Your task to perform on an android device: Open the camera Image 0: 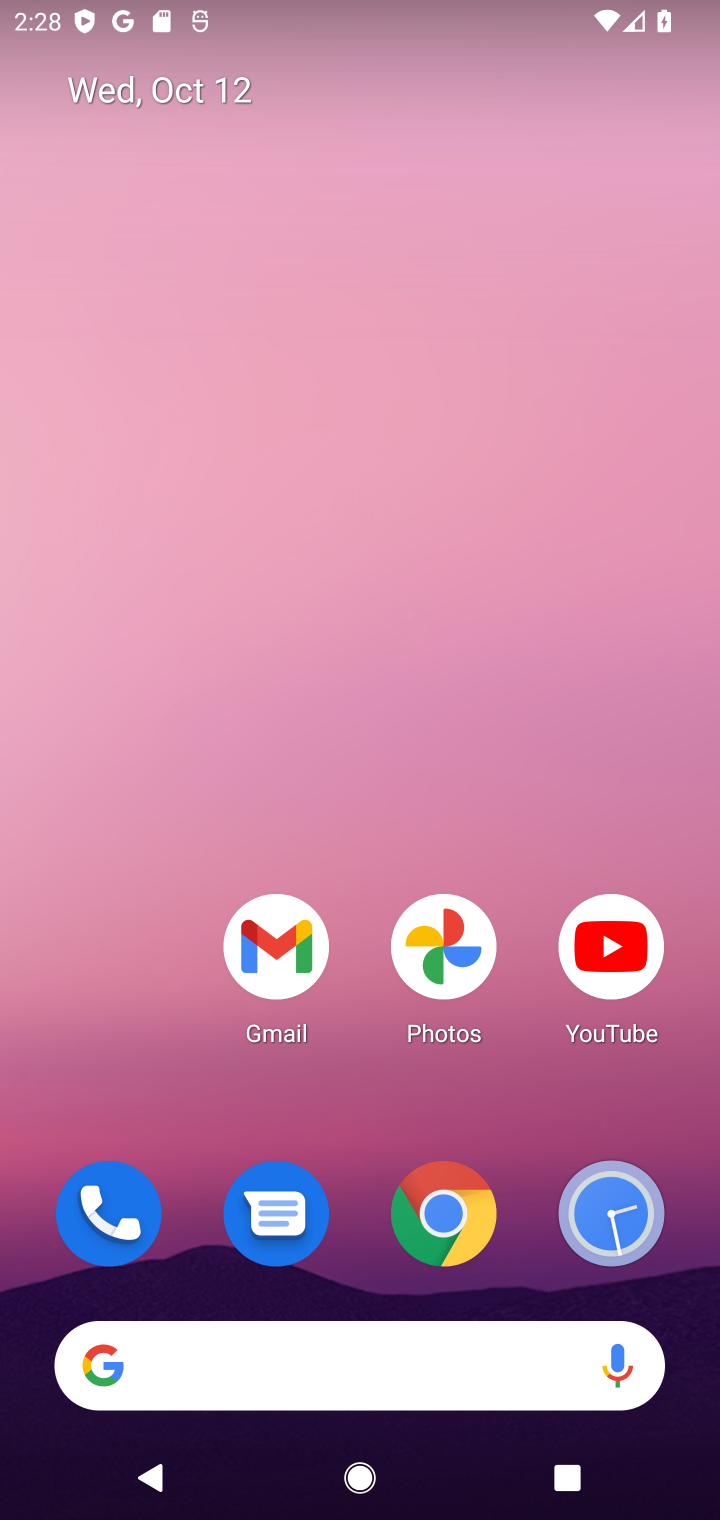
Step 0: drag from (359, 936) to (426, 174)
Your task to perform on an android device: Open the camera Image 1: 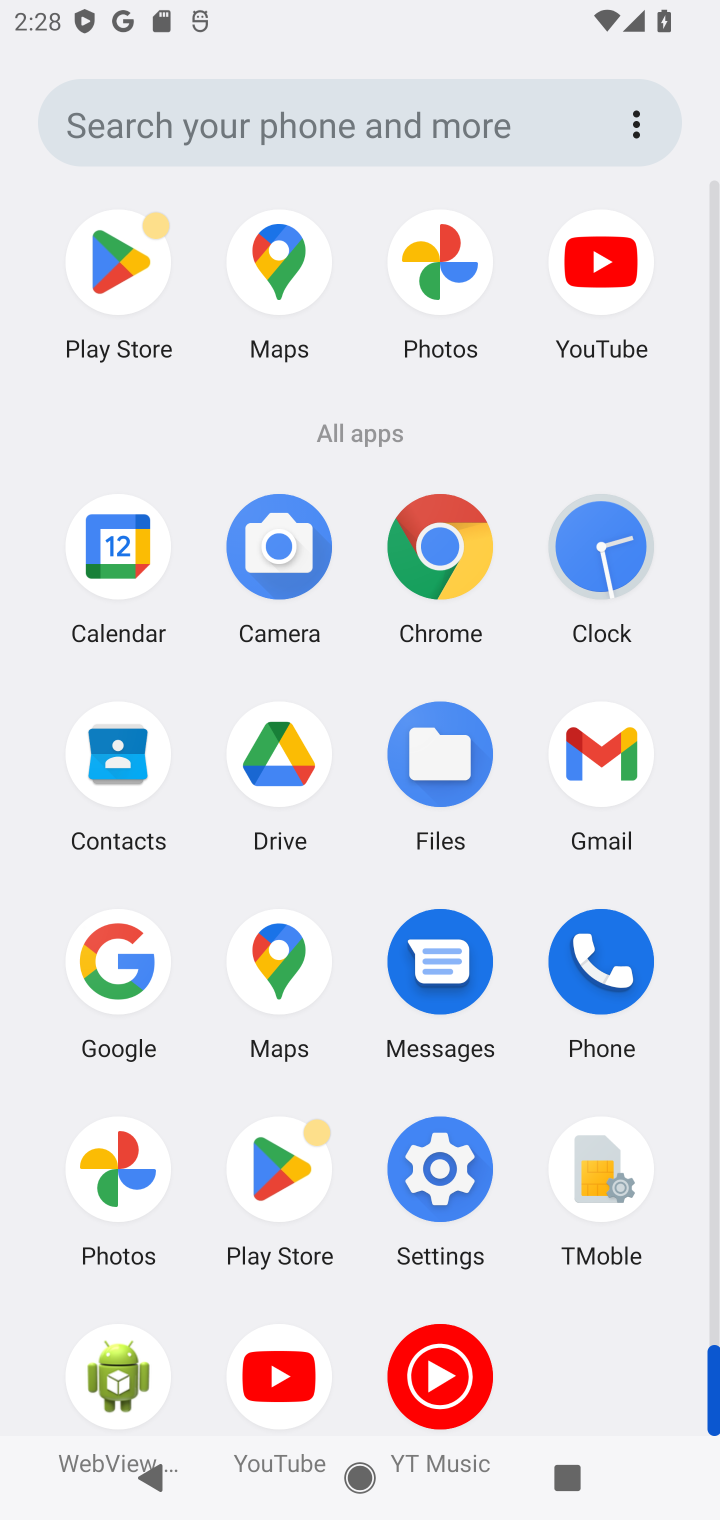
Step 1: click (254, 564)
Your task to perform on an android device: Open the camera Image 2: 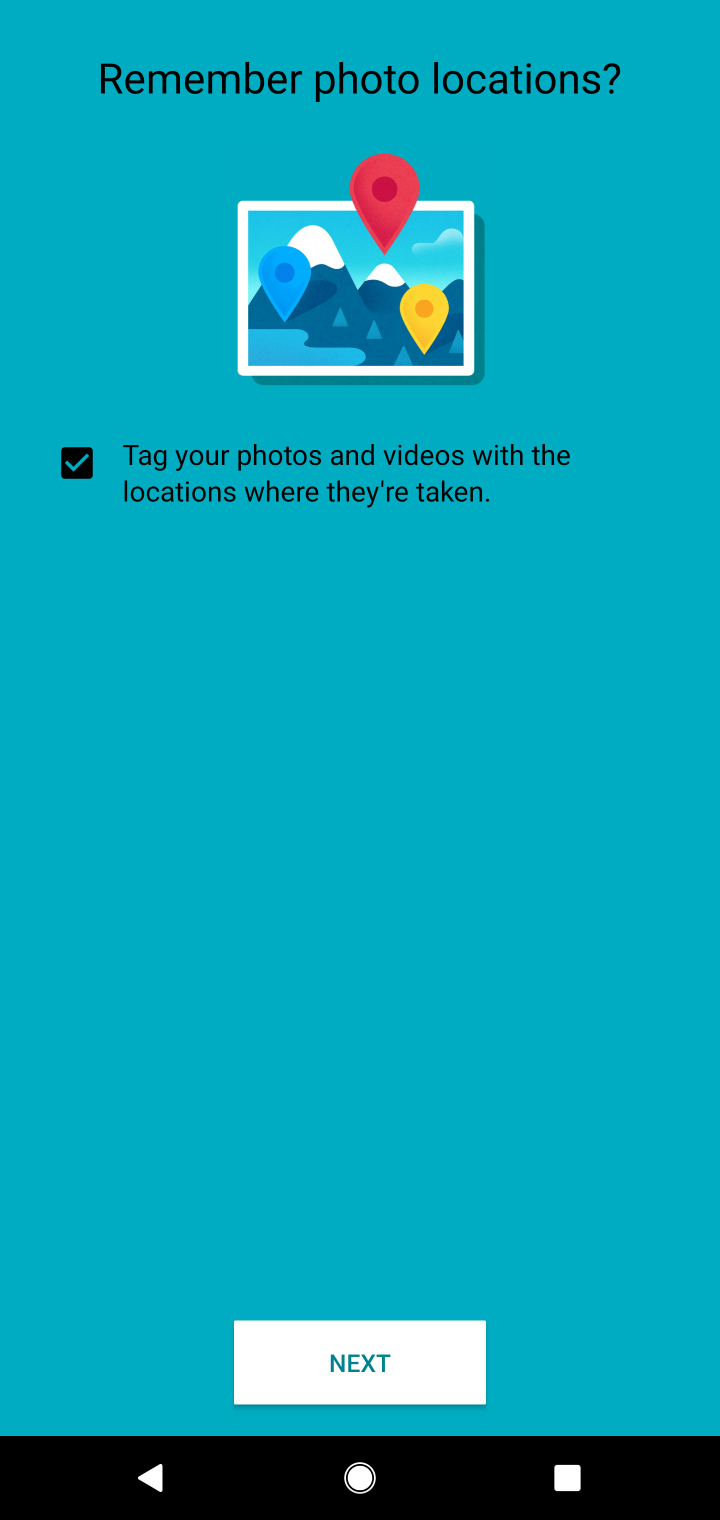
Step 2: click (310, 1369)
Your task to perform on an android device: Open the camera Image 3: 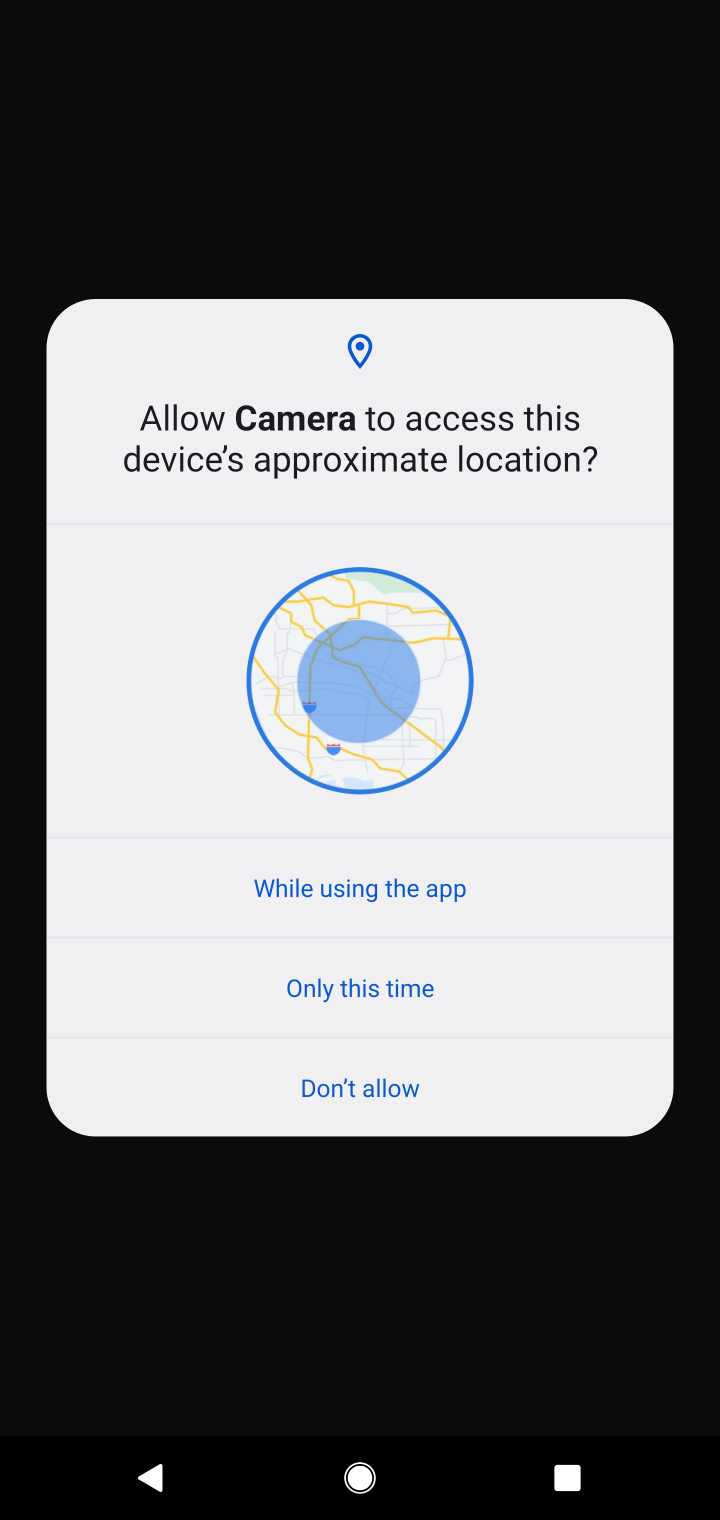
Step 3: task complete